Your task to perform on an android device: Is it going to rain tomorrow? Image 0: 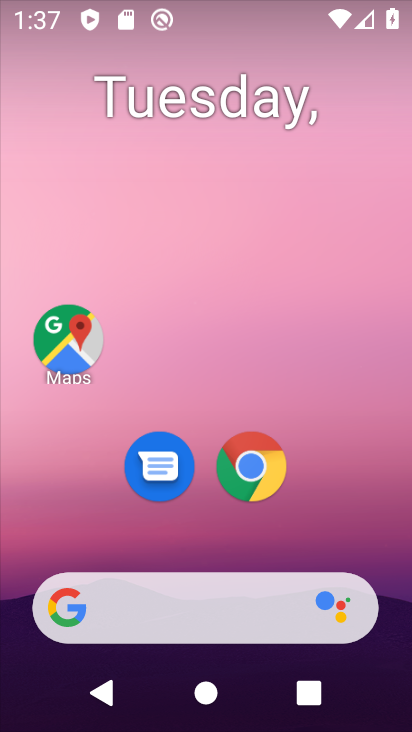
Step 0: drag from (378, 551) to (323, 42)
Your task to perform on an android device: Is it going to rain tomorrow? Image 1: 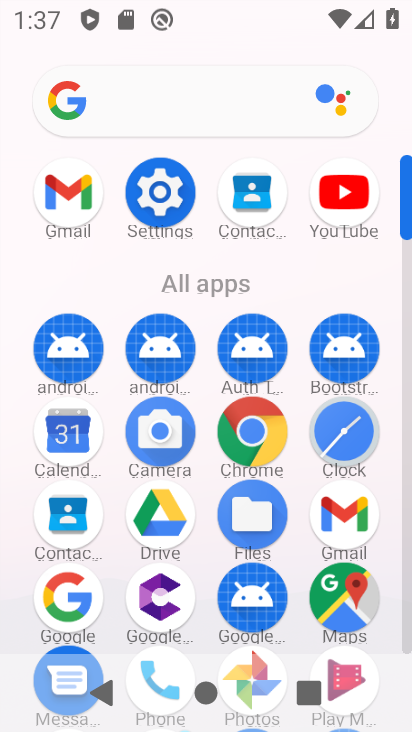
Step 1: click (183, 204)
Your task to perform on an android device: Is it going to rain tomorrow? Image 2: 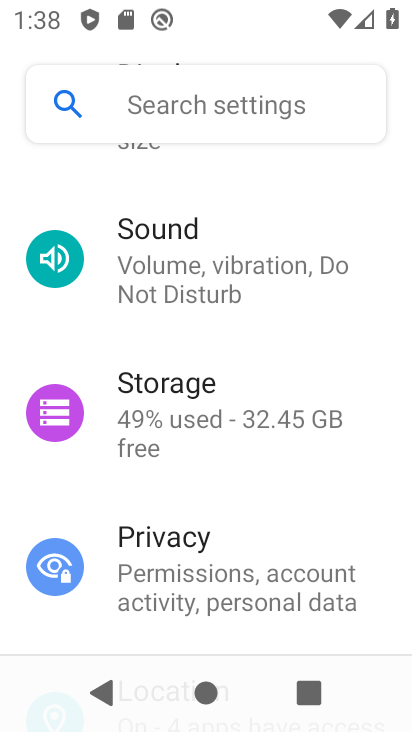
Step 2: task complete